Your task to perform on an android device: turn on airplane mode Image 0: 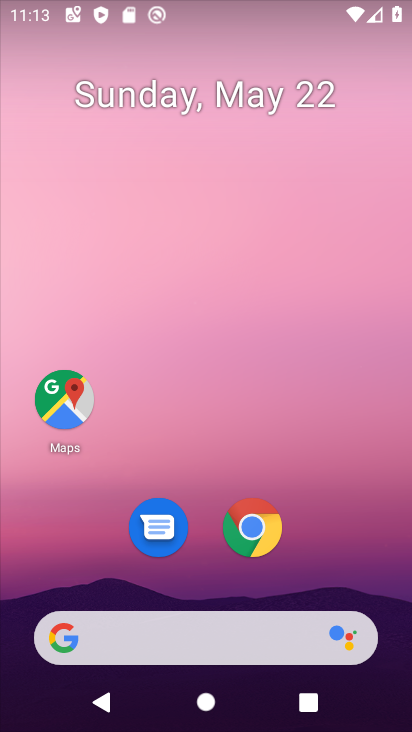
Step 0: drag from (365, 554) to (343, 269)
Your task to perform on an android device: turn on airplane mode Image 1: 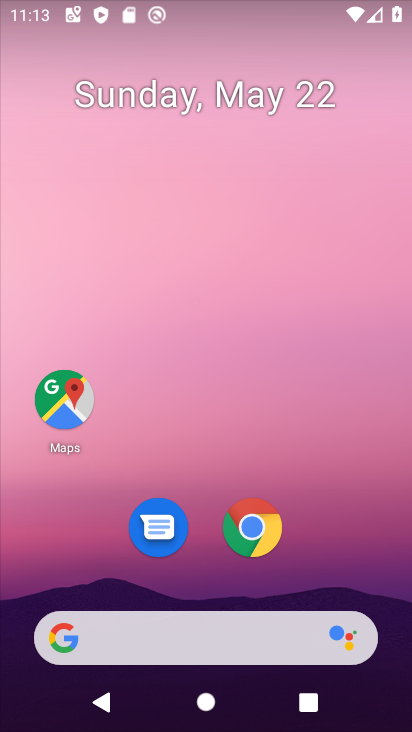
Step 1: drag from (353, 574) to (318, 55)
Your task to perform on an android device: turn on airplane mode Image 2: 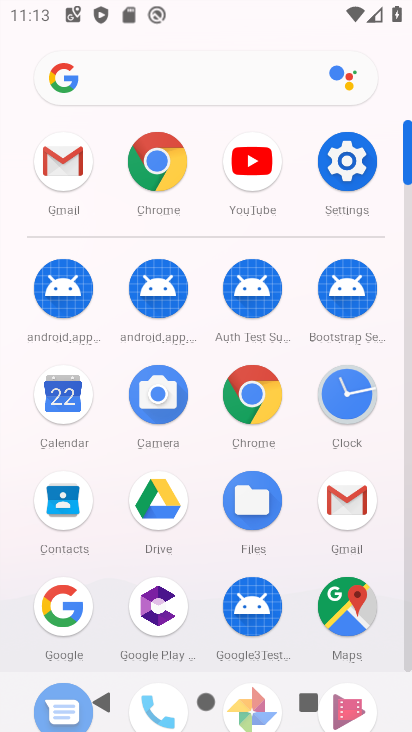
Step 2: click (353, 155)
Your task to perform on an android device: turn on airplane mode Image 3: 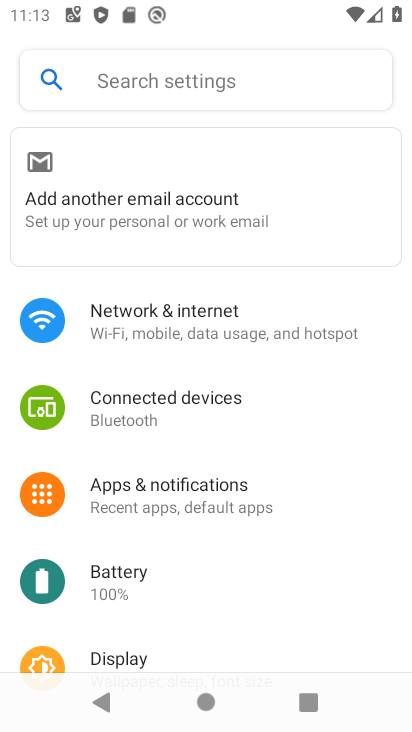
Step 3: click (227, 340)
Your task to perform on an android device: turn on airplane mode Image 4: 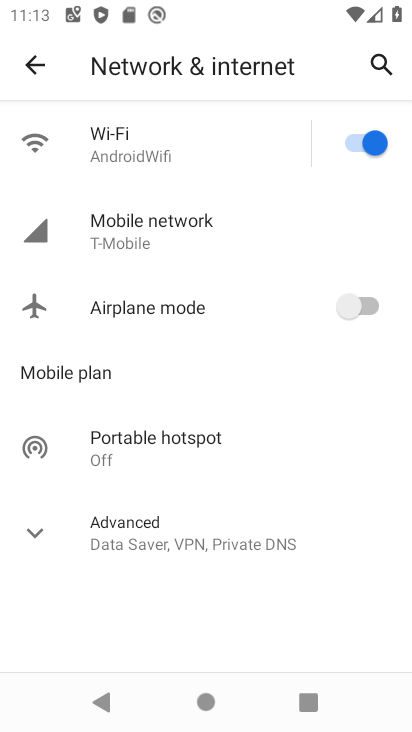
Step 4: click (357, 314)
Your task to perform on an android device: turn on airplane mode Image 5: 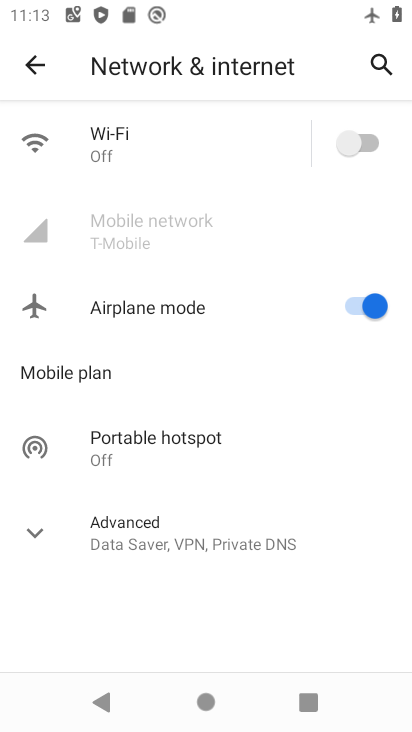
Step 5: task complete